Your task to perform on an android device: toggle pop-ups in chrome Image 0: 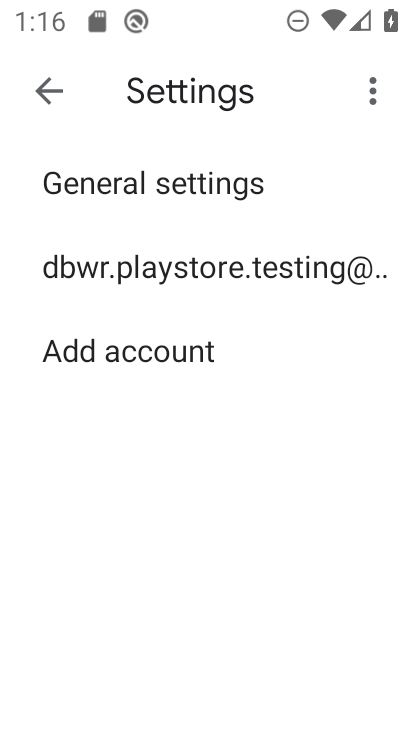
Step 0: press home button
Your task to perform on an android device: toggle pop-ups in chrome Image 1: 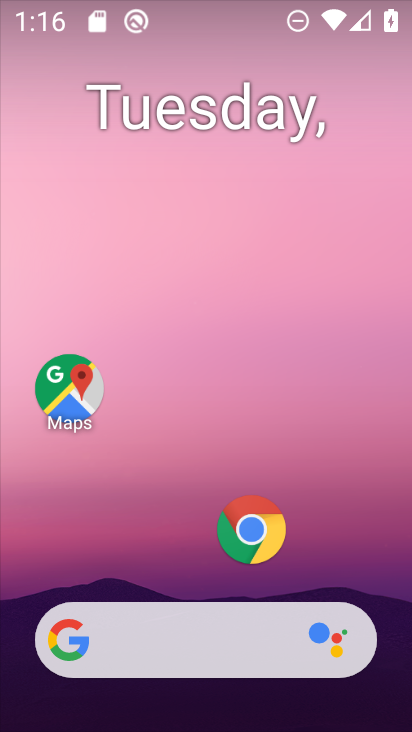
Step 1: drag from (207, 679) to (353, 27)
Your task to perform on an android device: toggle pop-ups in chrome Image 2: 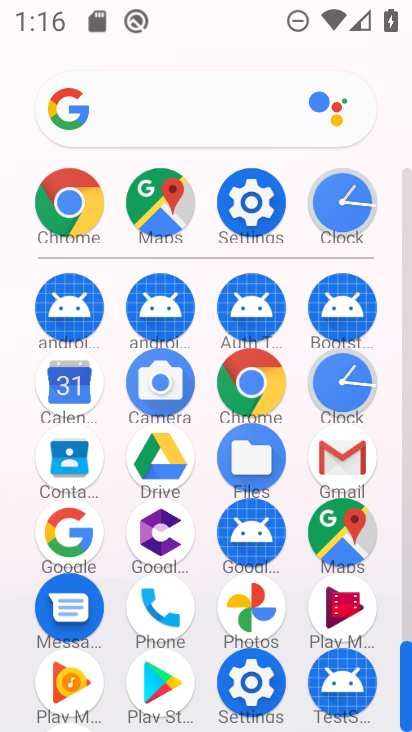
Step 2: click (74, 208)
Your task to perform on an android device: toggle pop-ups in chrome Image 3: 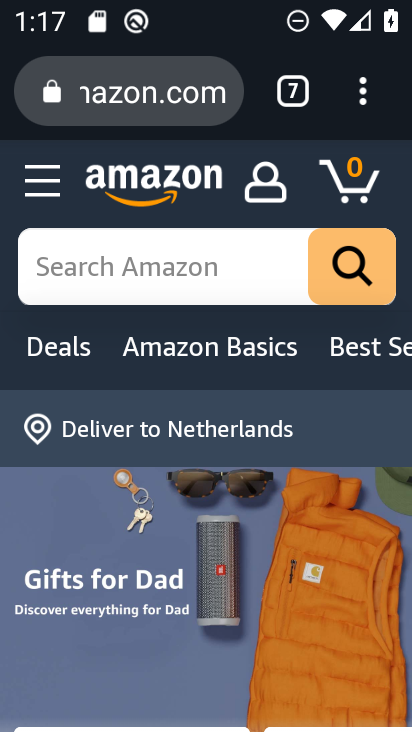
Step 3: click (365, 96)
Your task to perform on an android device: toggle pop-ups in chrome Image 4: 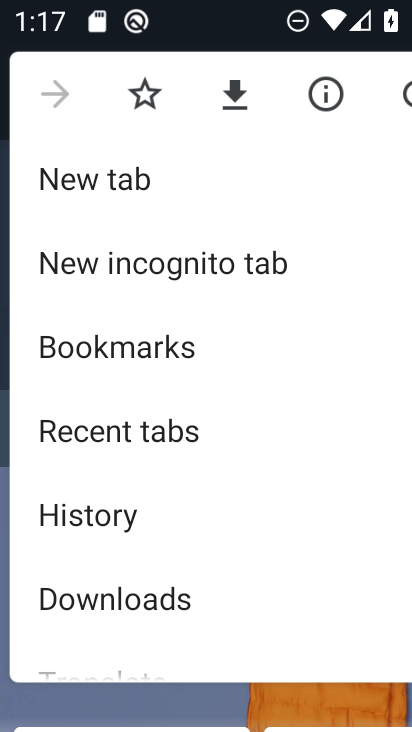
Step 4: drag from (158, 603) to (199, 354)
Your task to perform on an android device: toggle pop-ups in chrome Image 5: 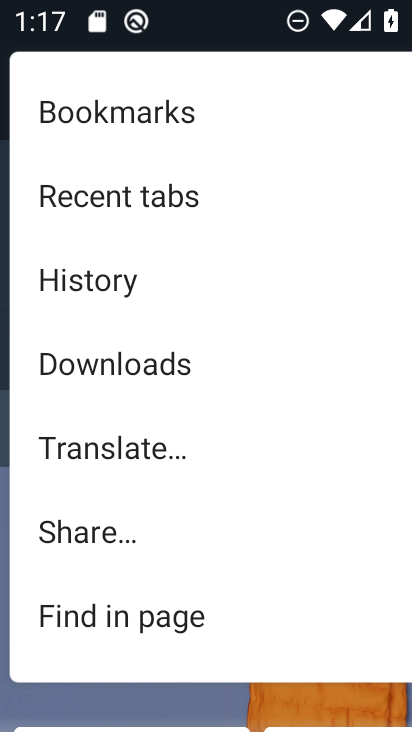
Step 5: drag from (107, 567) to (161, 429)
Your task to perform on an android device: toggle pop-ups in chrome Image 6: 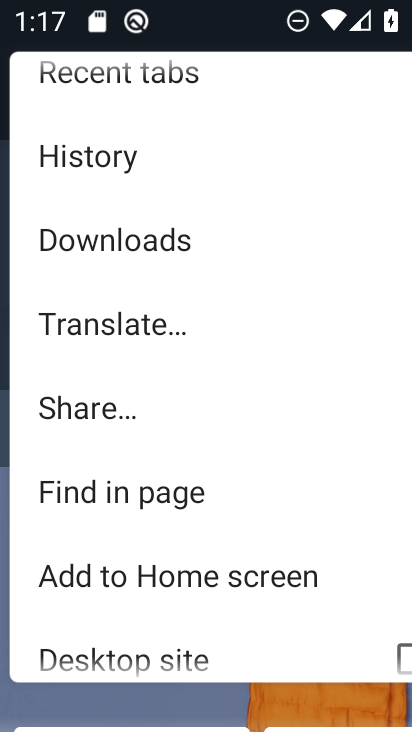
Step 6: click (179, 467)
Your task to perform on an android device: toggle pop-ups in chrome Image 7: 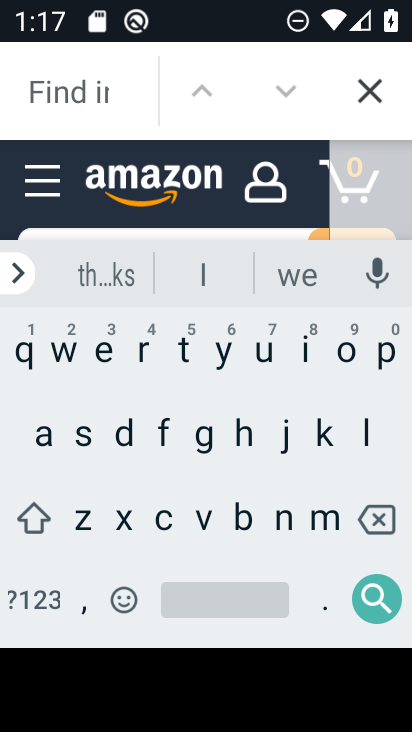
Step 7: click (358, 92)
Your task to perform on an android device: toggle pop-ups in chrome Image 8: 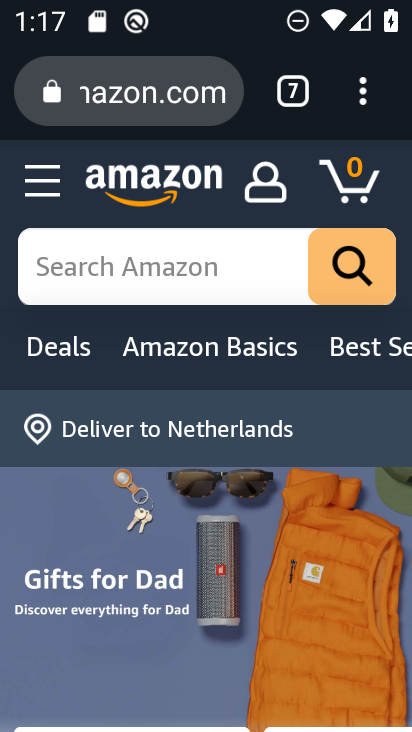
Step 8: click (366, 92)
Your task to perform on an android device: toggle pop-ups in chrome Image 9: 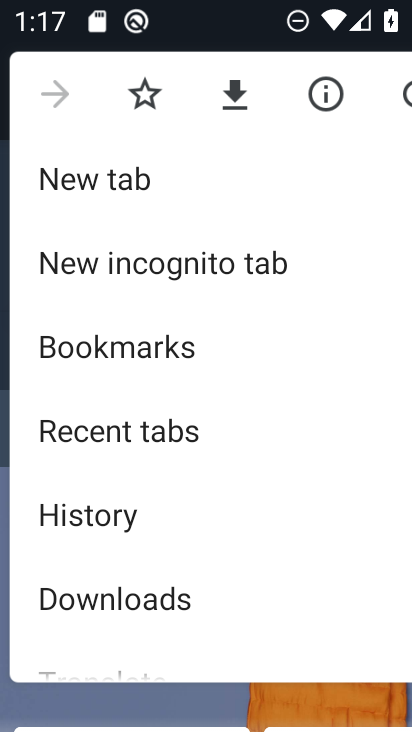
Step 9: drag from (70, 549) to (124, 156)
Your task to perform on an android device: toggle pop-ups in chrome Image 10: 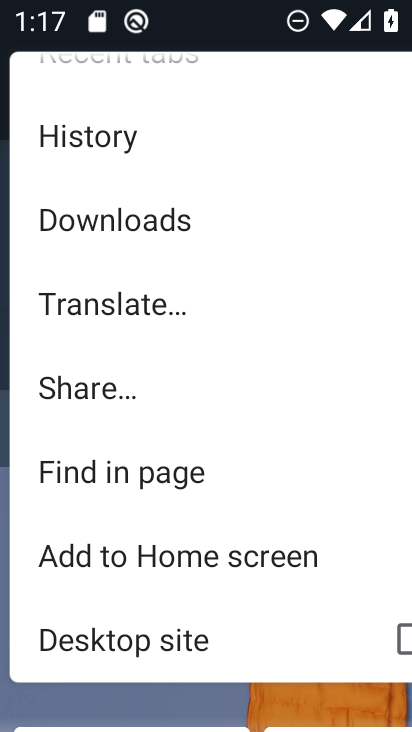
Step 10: drag from (70, 635) to (103, 521)
Your task to perform on an android device: toggle pop-ups in chrome Image 11: 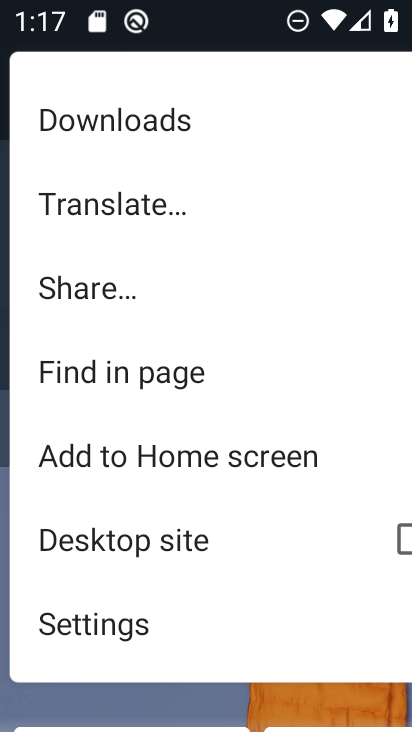
Step 11: click (82, 626)
Your task to perform on an android device: toggle pop-ups in chrome Image 12: 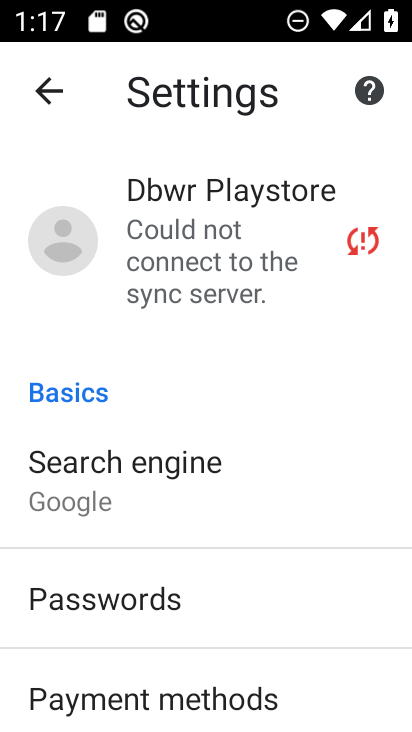
Step 12: drag from (151, 662) to (172, 385)
Your task to perform on an android device: toggle pop-ups in chrome Image 13: 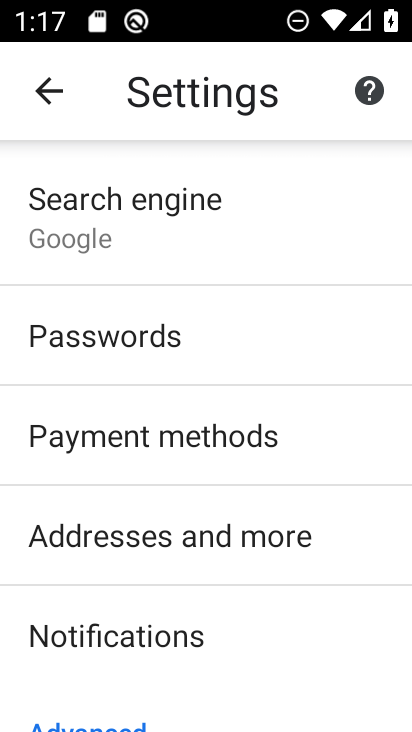
Step 13: drag from (142, 641) to (215, 322)
Your task to perform on an android device: toggle pop-ups in chrome Image 14: 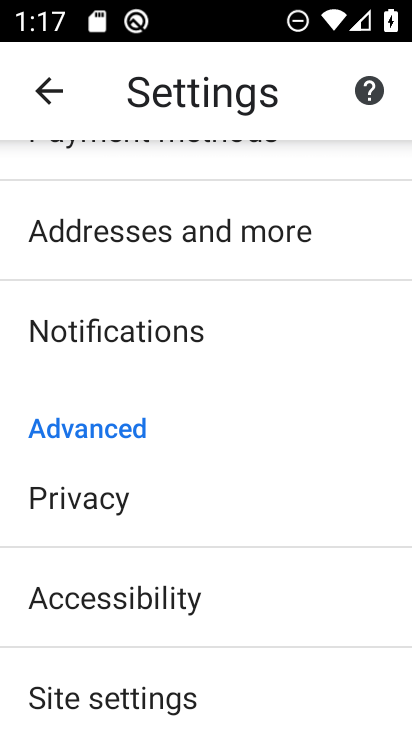
Step 14: click (117, 688)
Your task to perform on an android device: toggle pop-ups in chrome Image 15: 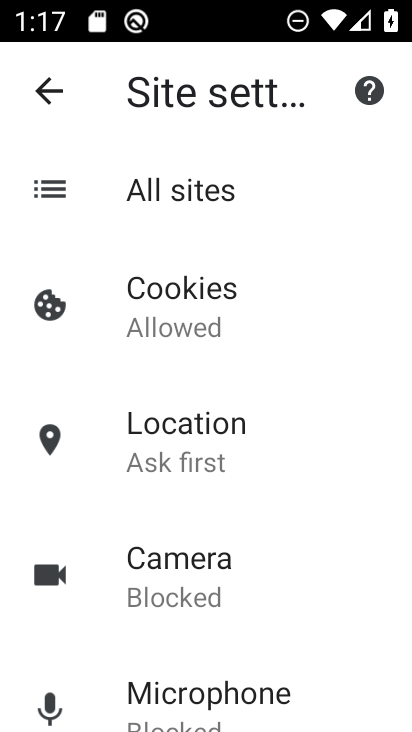
Step 15: drag from (169, 587) to (211, 383)
Your task to perform on an android device: toggle pop-ups in chrome Image 16: 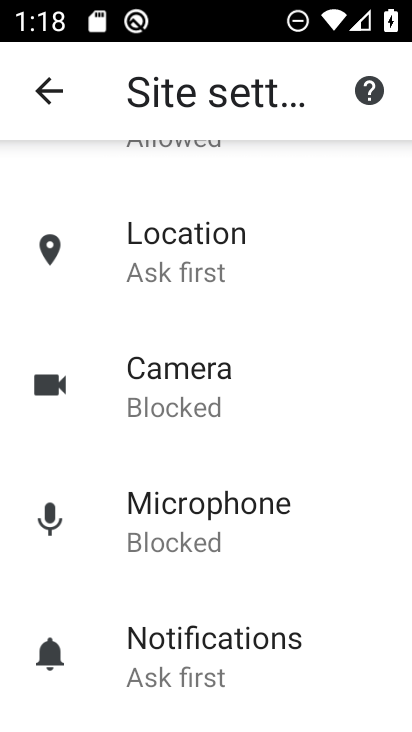
Step 16: drag from (173, 556) to (208, 440)
Your task to perform on an android device: toggle pop-ups in chrome Image 17: 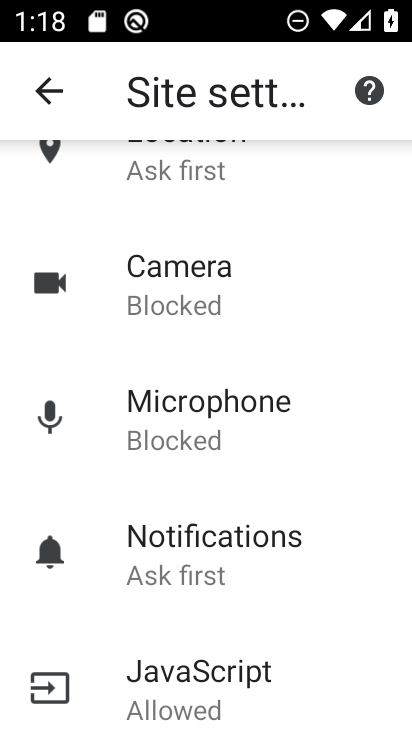
Step 17: drag from (160, 649) to (201, 539)
Your task to perform on an android device: toggle pop-ups in chrome Image 18: 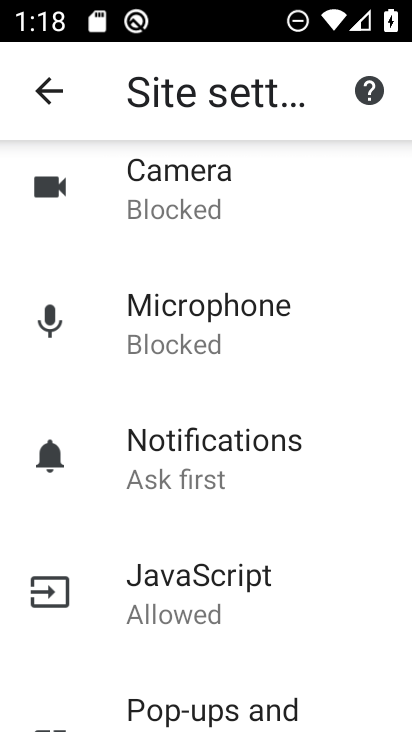
Step 18: click (158, 695)
Your task to perform on an android device: toggle pop-ups in chrome Image 19: 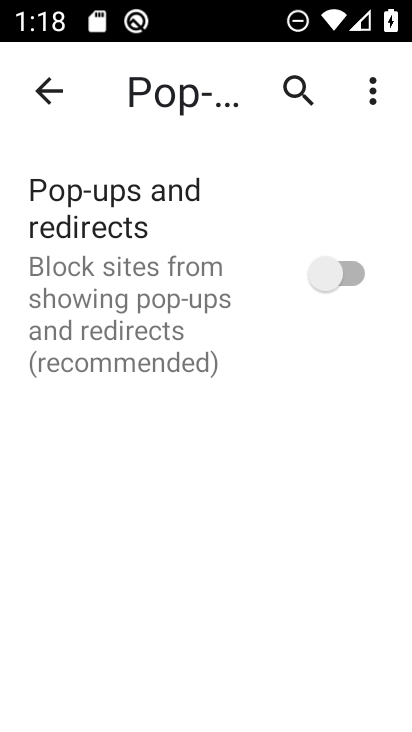
Step 19: task complete